Your task to perform on an android device: Is it going to rain this weekend? Image 0: 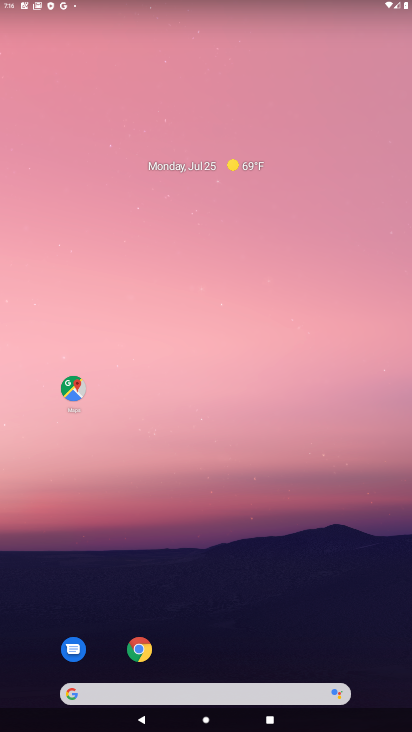
Step 0: drag from (211, 553) to (297, 2)
Your task to perform on an android device: Is it going to rain this weekend? Image 1: 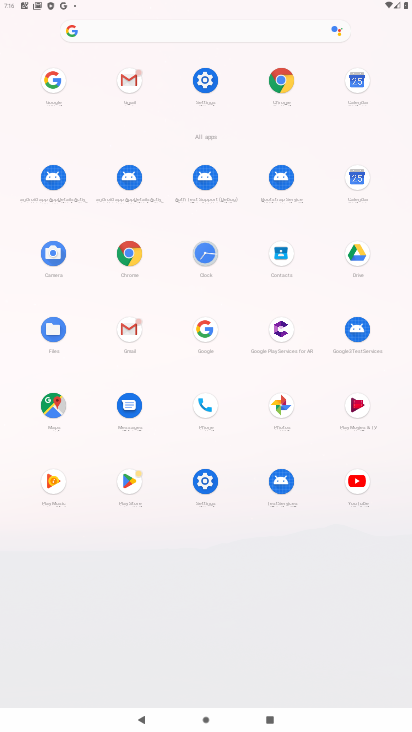
Step 1: click (196, 332)
Your task to perform on an android device: Is it going to rain this weekend? Image 2: 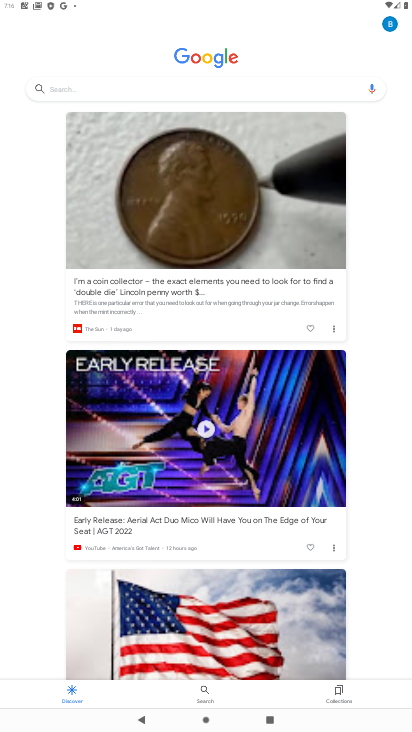
Step 2: click (165, 73)
Your task to perform on an android device: Is it going to rain this weekend? Image 3: 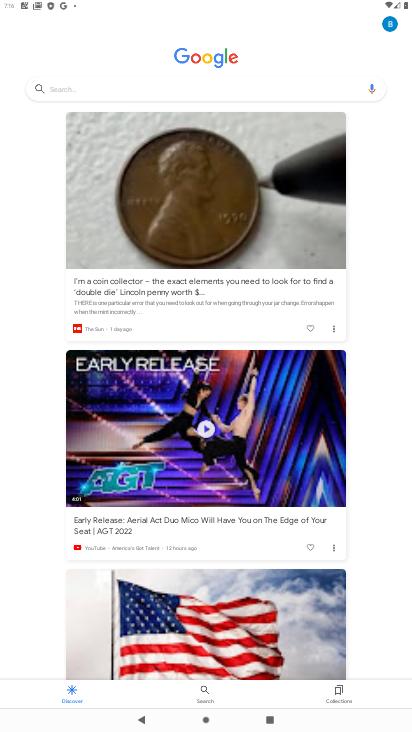
Step 3: click (162, 86)
Your task to perform on an android device: Is it going to rain this weekend? Image 4: 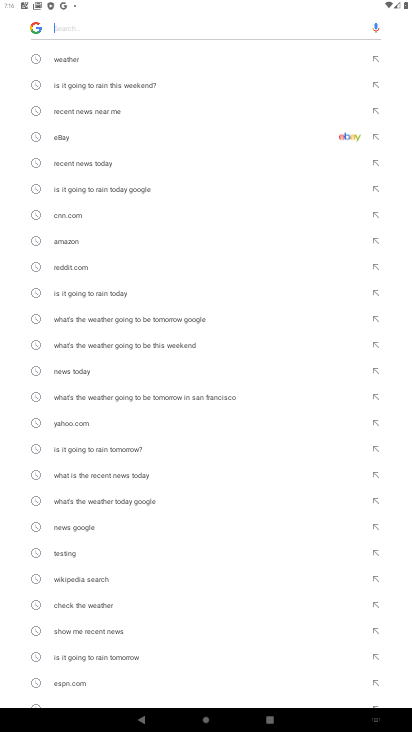
Step 4: click (72, 54)
Your task to perform on an android device: Is it going to rain this weekend? Image 5: 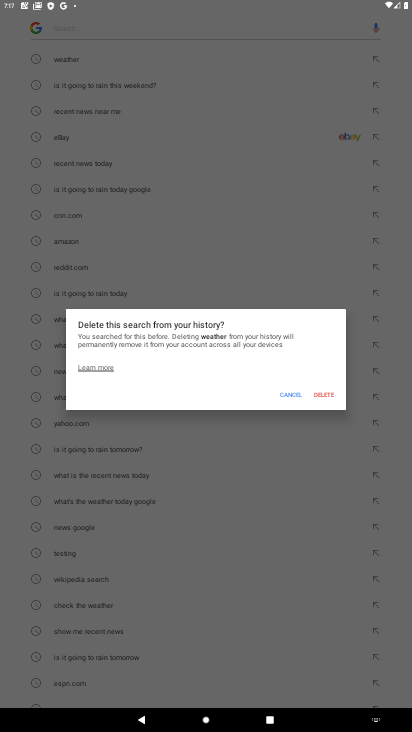
Step 5: click (285, 395)
Your task to perform on an android device: Is it going to rain this weekend? Image 6: 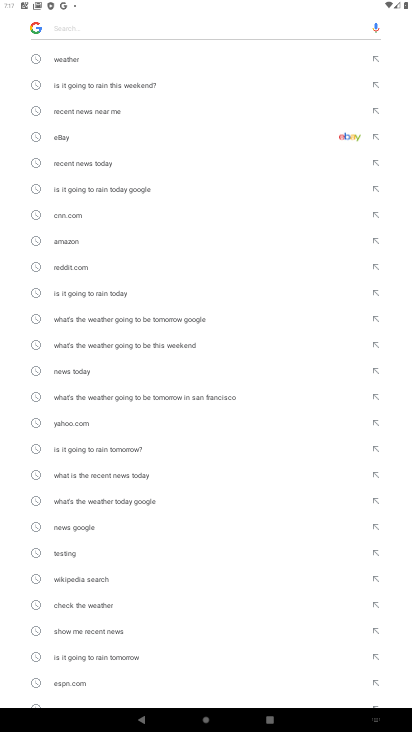
Step 6: click (61, 64)
Your task to perform on an android device: Is it going to rain this weekend? Image 7: 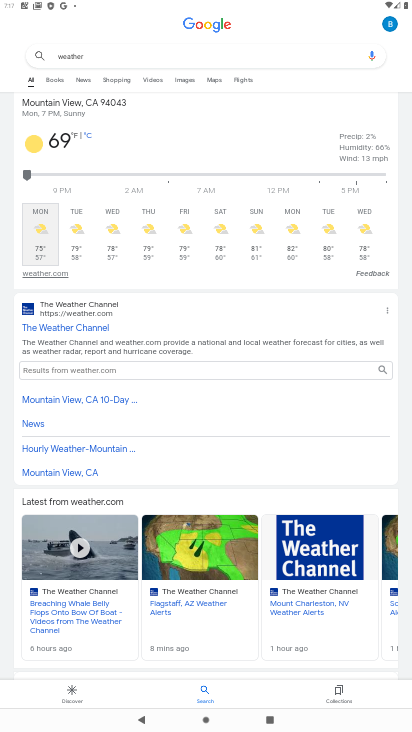
Step 7: task complete